Your task to perform on an android device: move a message to another label in the gmail app Image 0: 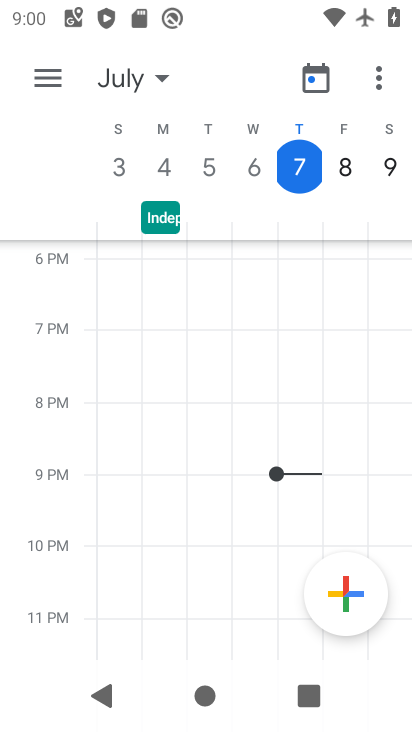
Step 0: press home button
Your task to perform on an android device: move a message to another label in the gmail app Image 1: 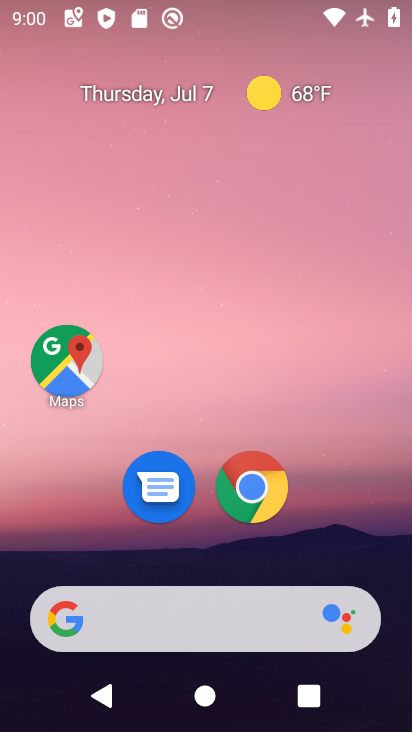
Step 1: drag from (195, 579) to (130, 67)
Your task to perform on an android device: move a message to another label in the gmail app Image 2: 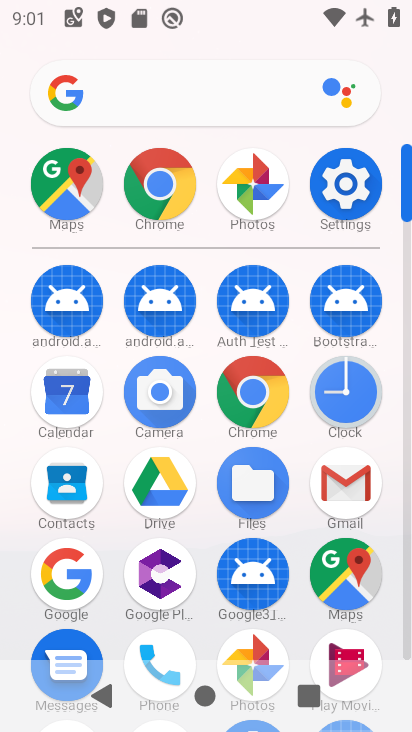
Step 2: click (349, 488)
Your task to perform on an android device: move a message to another label in the gmail app Image 3: 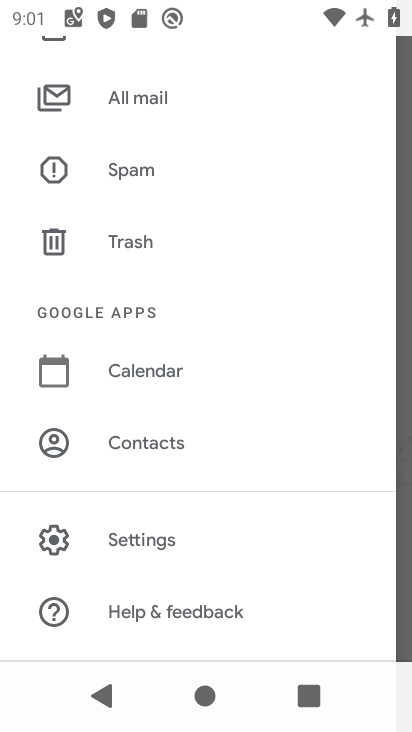
Step 3: click (125, 94)
Your task to perform on an android device: move a message to another label in the gmail app Image 4: 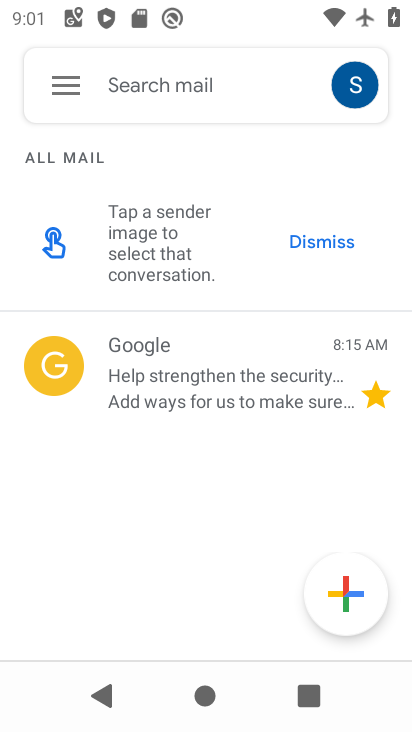
Step 4: drag from (179, 158) to (199, 413)
Your task to perform on an android device: move a message to another label in the gmail app Image 5: 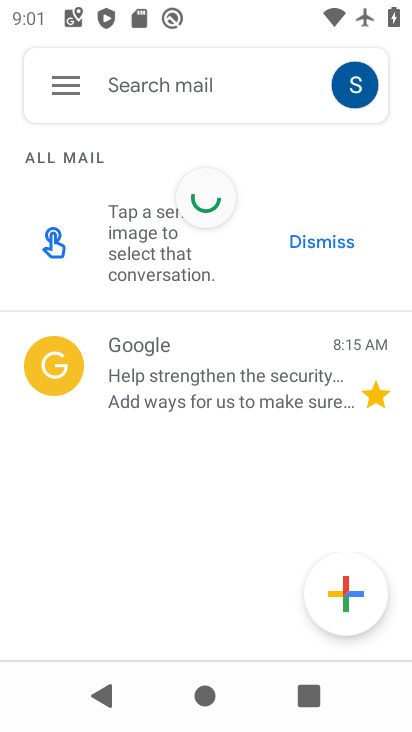
Step 5: click (311, 251)
Your task to perform on an android device: move a message to another label in the gmail app Image 6: 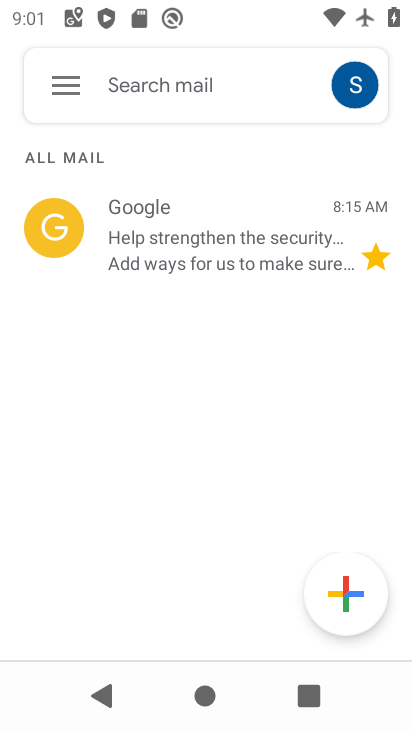
Step 6: click (39, 81)
Your task to perform on an android device: move a message to another label in the gmail app Image 7: 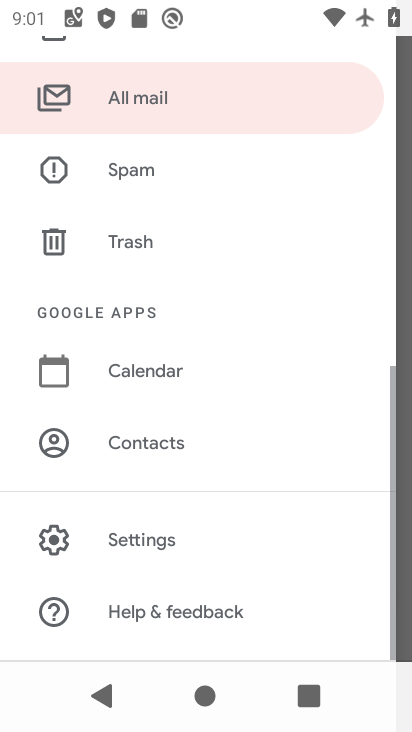
Step 7: drag from (79, 137) to (94, 597)
Your task to perform on an android device: move a message to another label in the gmail app Image 8: 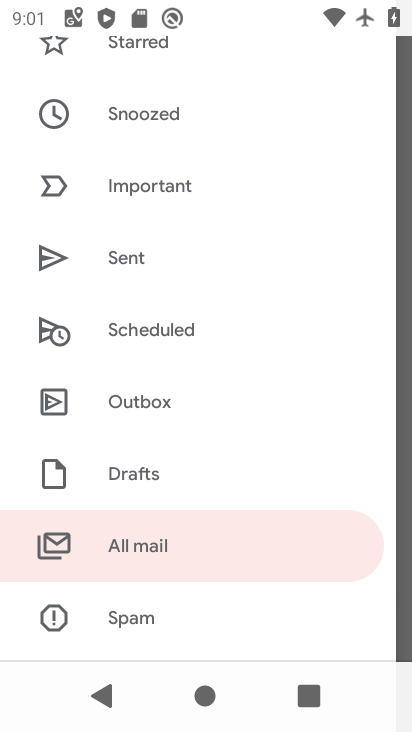
Step 8: drag from (122, 678) to (116, 725)
Your task to perform on an android device: move a message to another label in the gmail app Image 9: 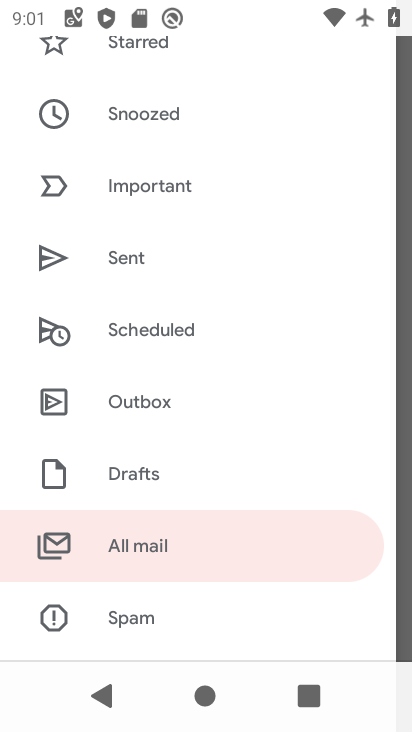
Step 9: drag from (162, 109) to (133, 725)
Your task to perform on an android device: move a message to another label in the gmail app Image 10: 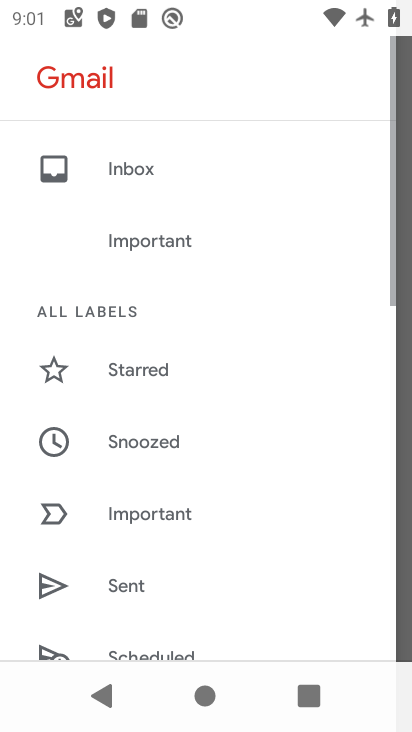
Step 10: click (116, 172)
Your task to perform on an android device: move a message to another label in the gmail app Image 11: 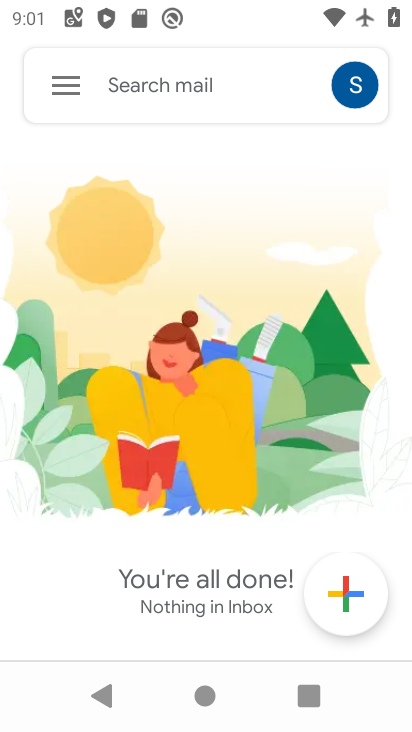
Step 11: task complete